Your task to perform on an android device: star an email in the gmail app Image 0: 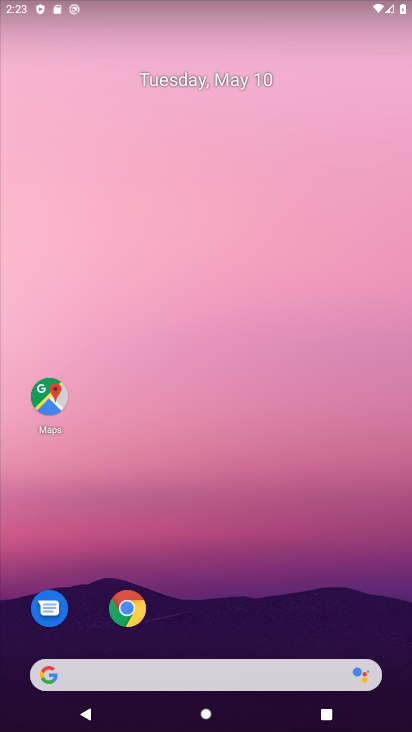
Step 0: drag from (355, 608) to (358, 0)
Your task to perform on an android device: star an email in the gmail app Image 1: 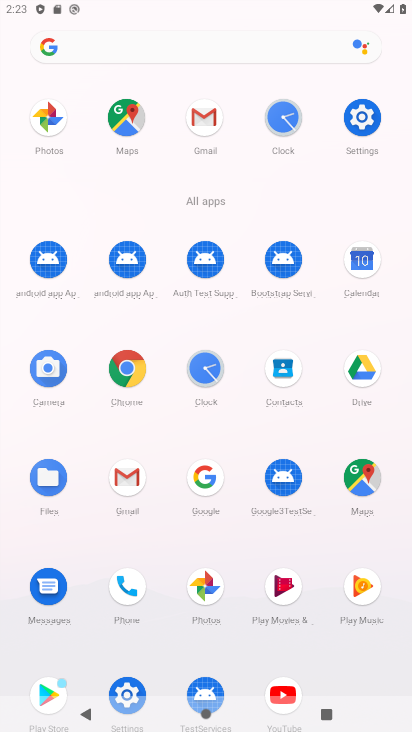
Step 1: click (199, 127)
Your task to perform on an android device: star an email in the gmail app Image 2: 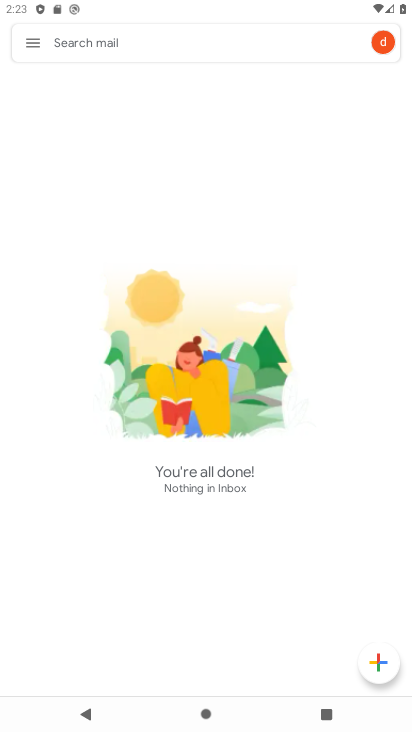
Step 2: click (31, 38)
Your task to perform on an android device: star an email in the gmail app Image 3: 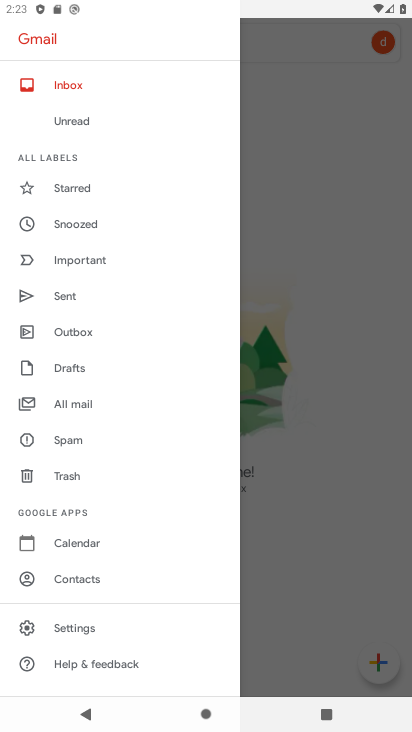
Step 3: click (82, 408)
Your task to perform on an android device: star an email in the gmail app Image 4: 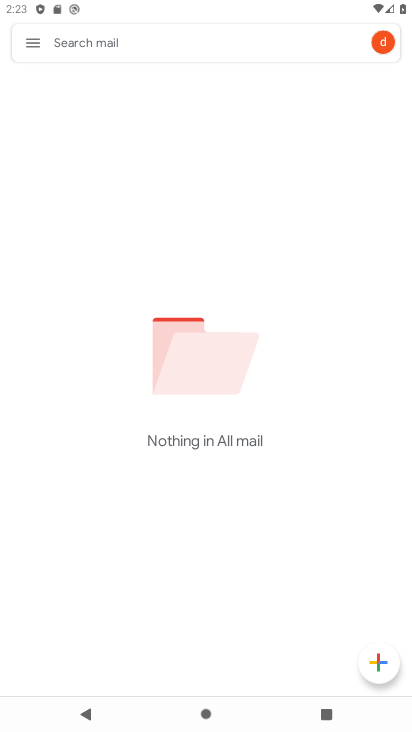
Step 4: task complete